Your task to perform on an android device: delete browsing data in the chrome app Image 0: 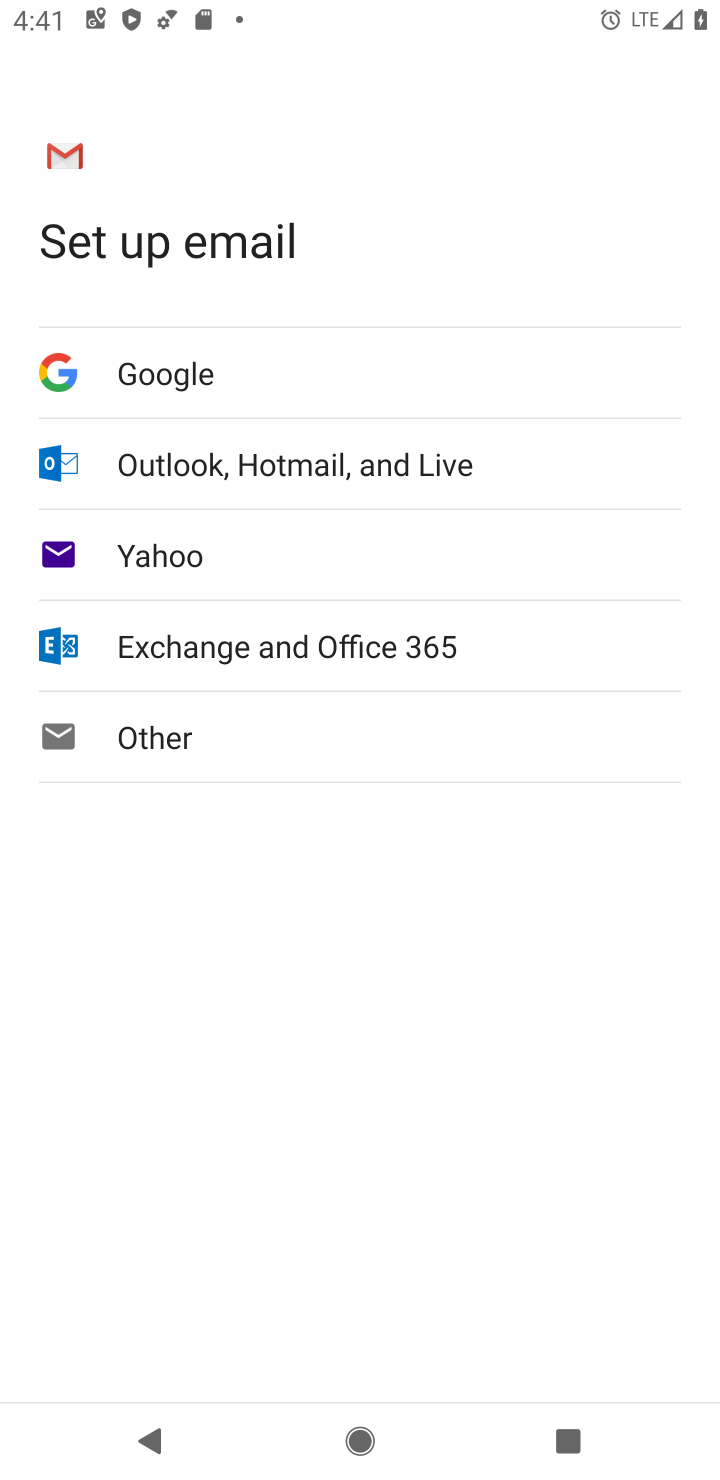
Step 0: press home button
Your task to perform on an android device: delete browsing data in the chrome app Image 1: 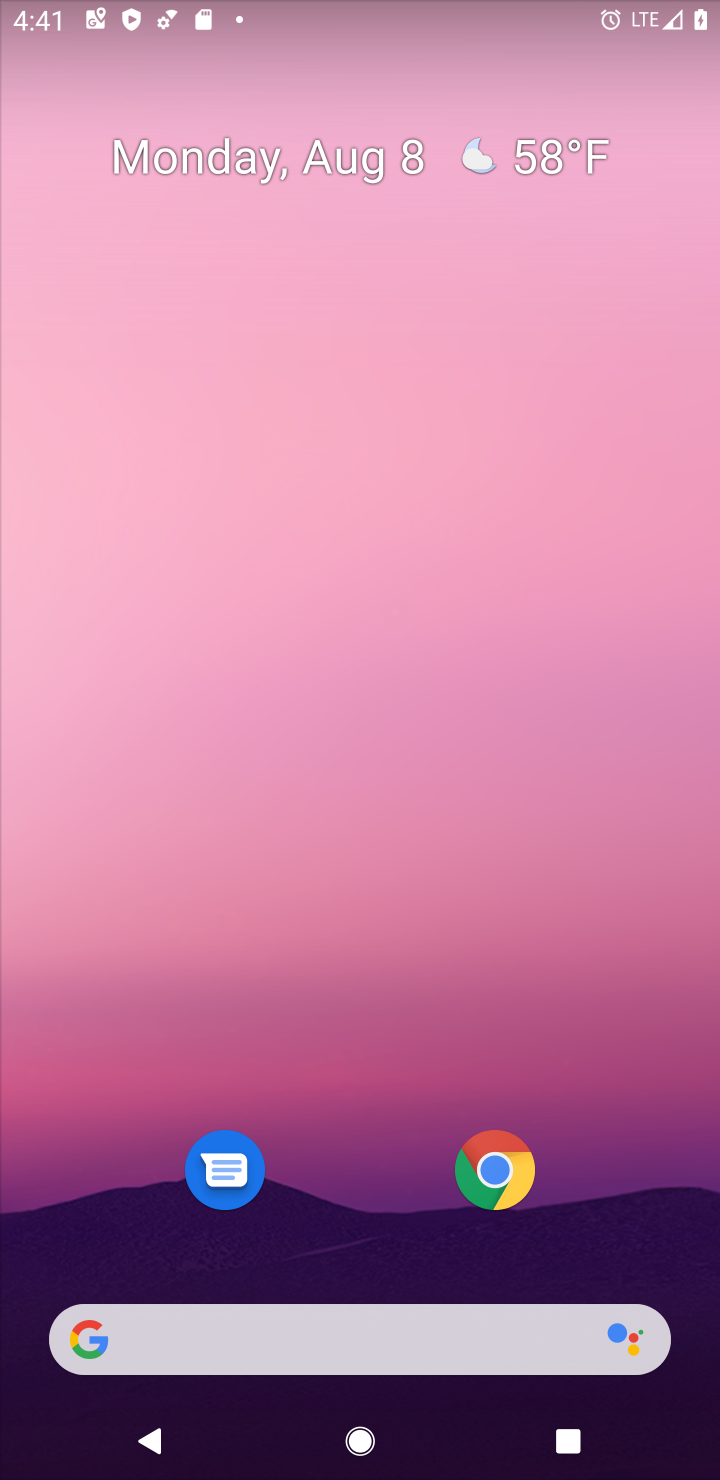
Step 1: click (543, 1178)
Your task to perform on an android device: delete browsing data in the chrome app Image 2: 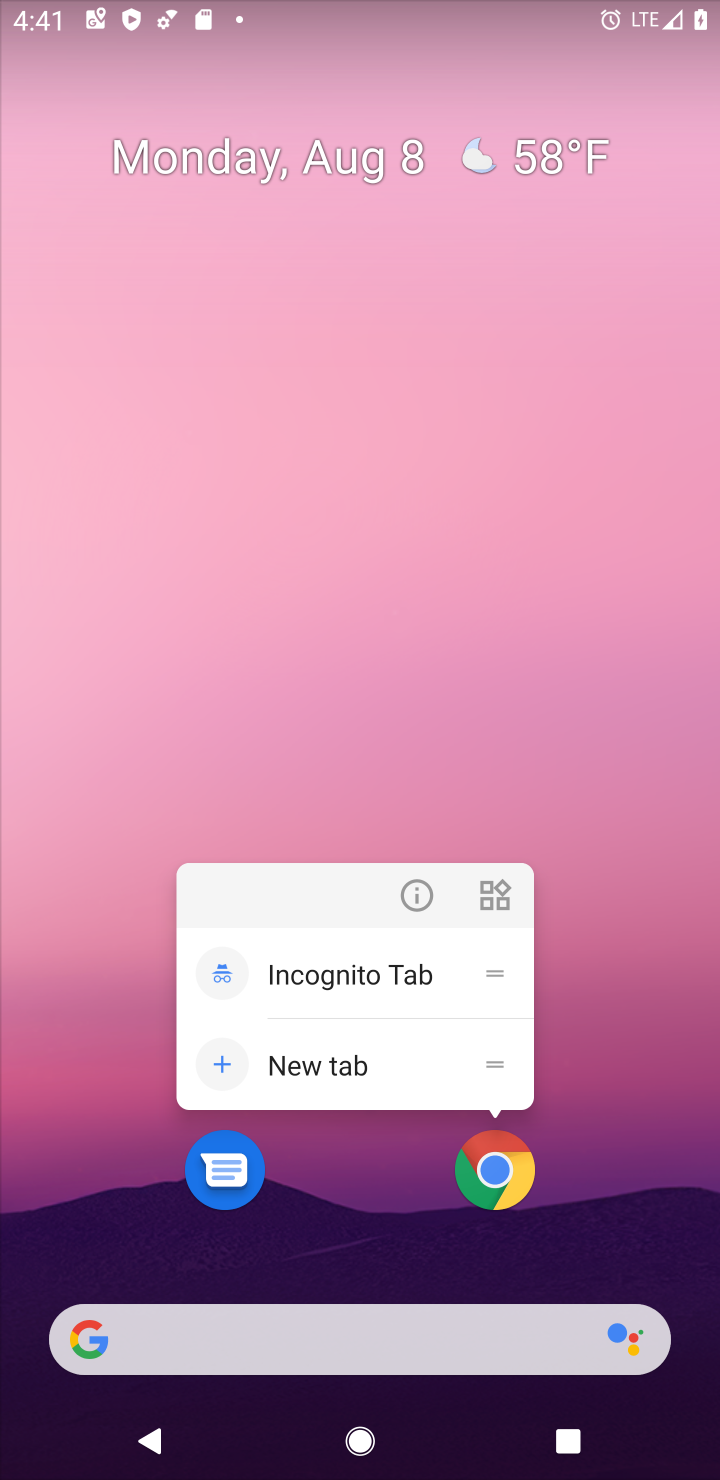
Step 2: click (517, 1201)
Your task to perform on an android device: delete browsing data in the chrome app Image 3: 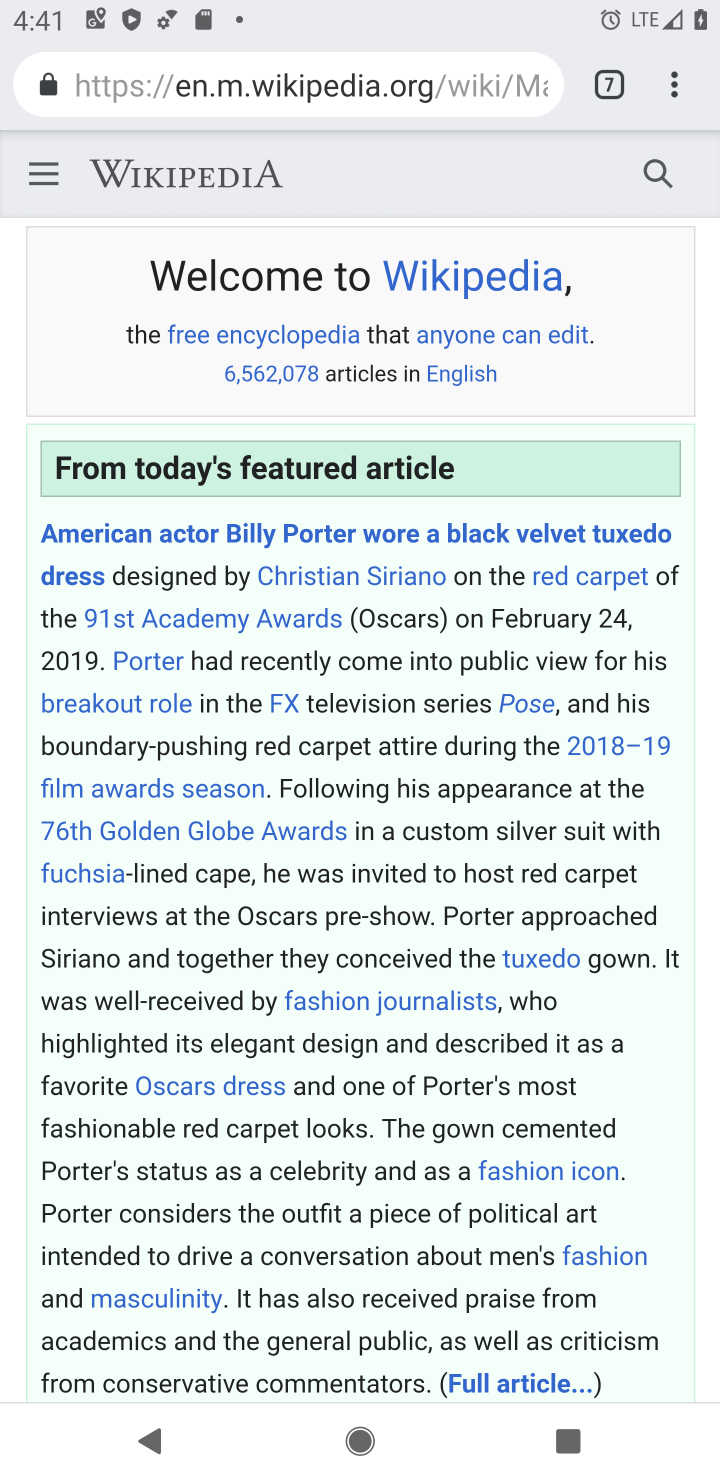
Step 3: click (672, 83)
Your task to perform on an android device: delete browsing data in the chrome app Image 4: 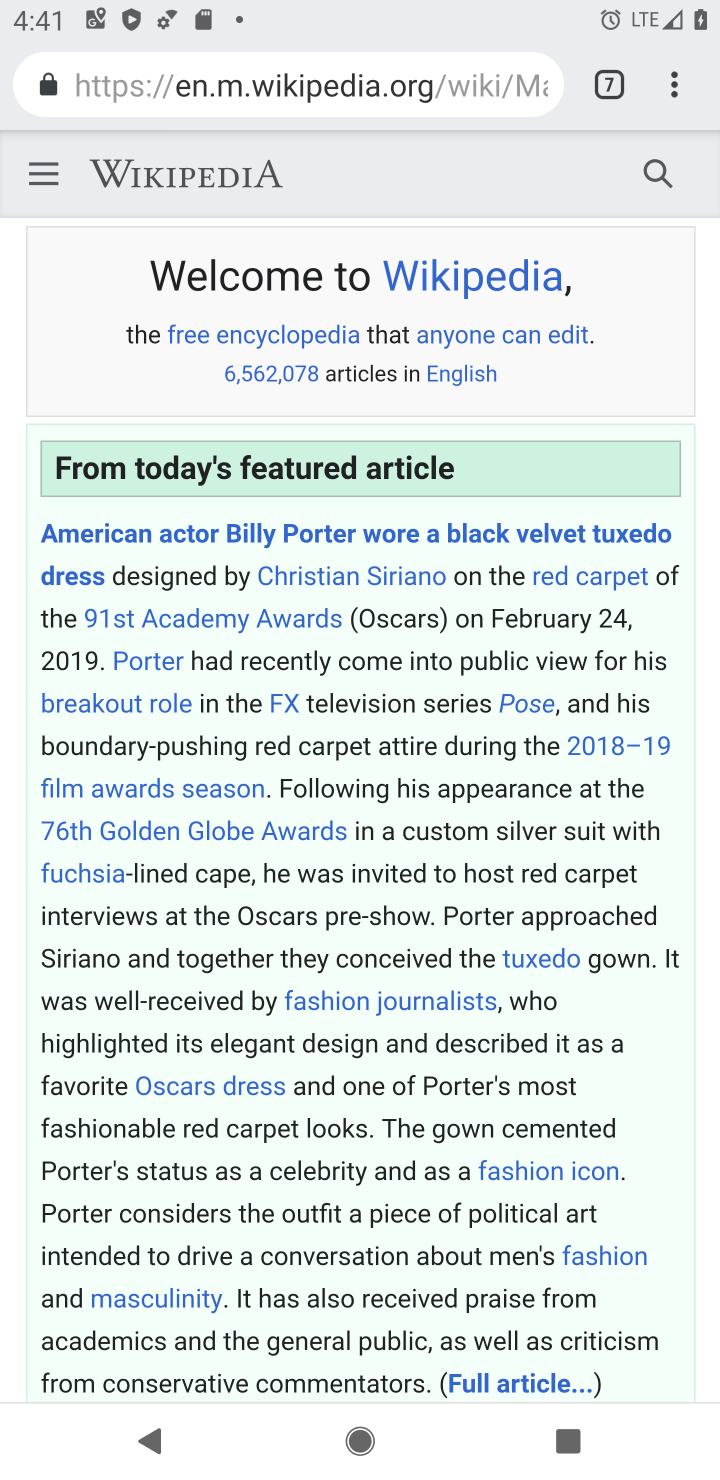
Step 4: click (676, 92)
Your task to perform on an android device: delete browsing data in the chrome app Image 5: 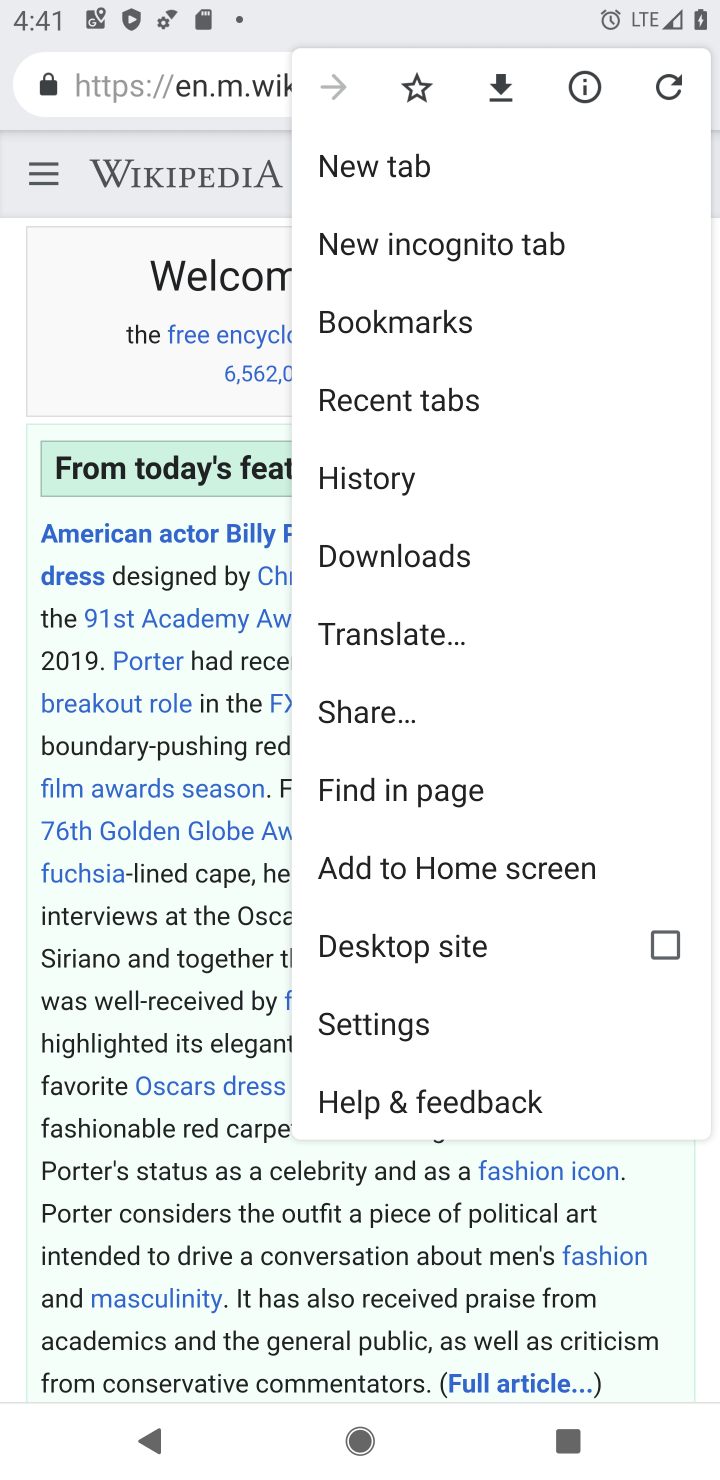
Step 5: click (457, 478)
Your task to perform on an android device: delete browsing data in the chrome app Image 6: 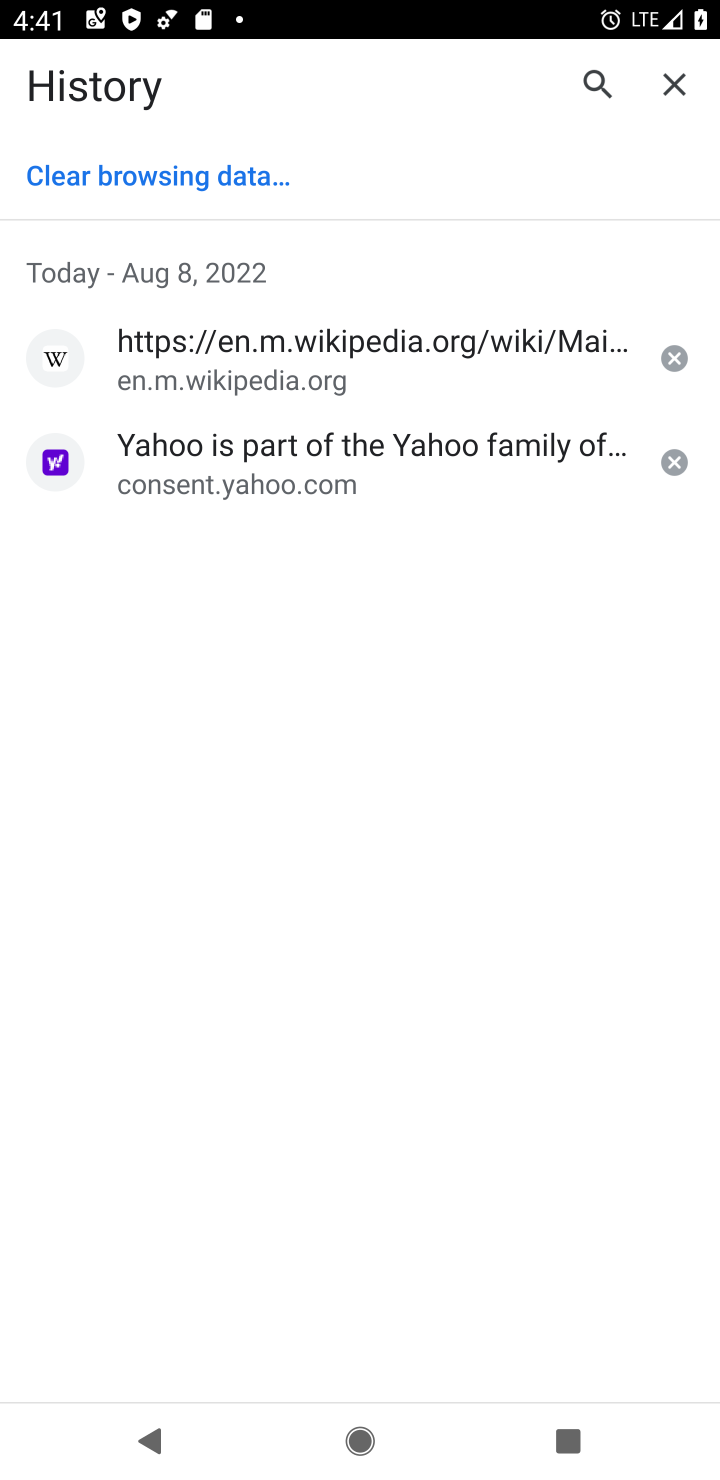
Step 6: click (129, 169)
Your task to perform on an android device: delete browsing data in the chrome app Image 7: 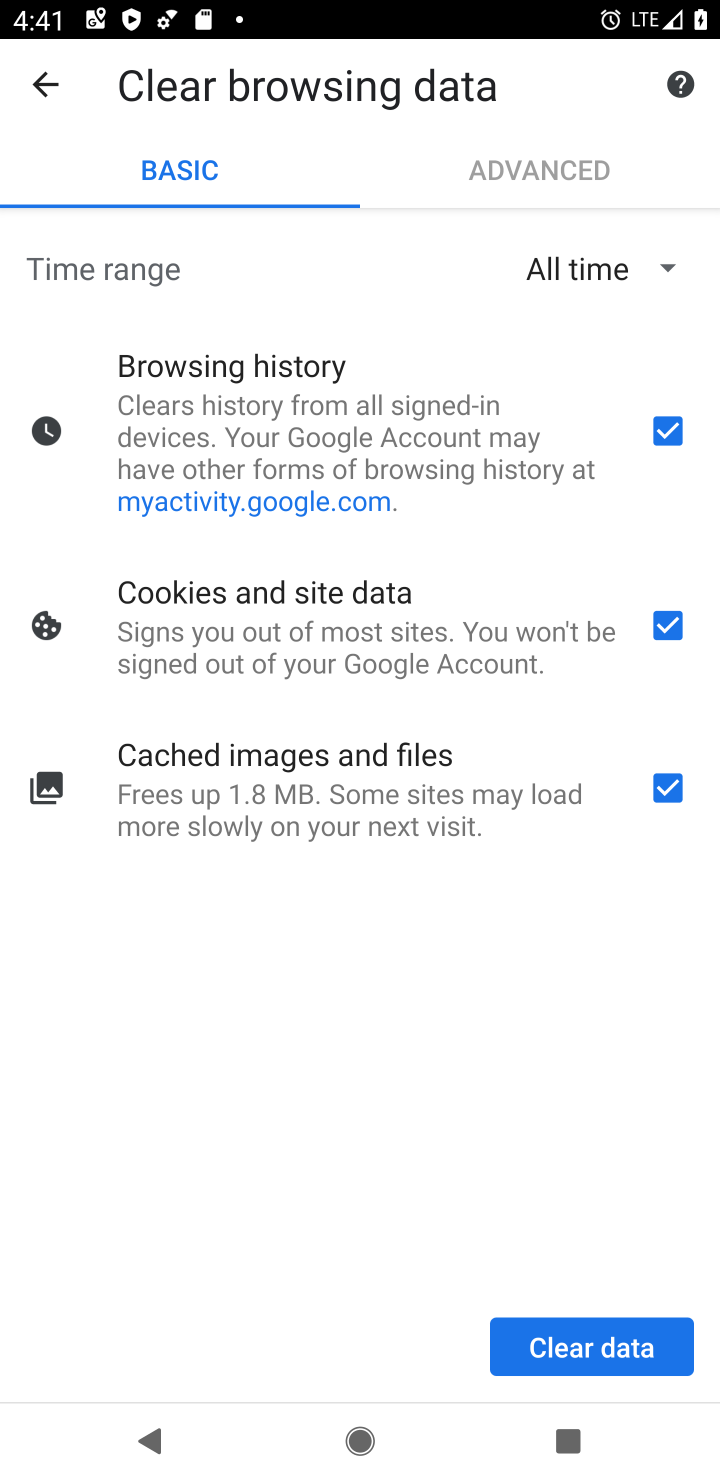
Step 7: click (596, 1320)
Your task to perform on an android device: delete browsing data in the chrome app Image 8: 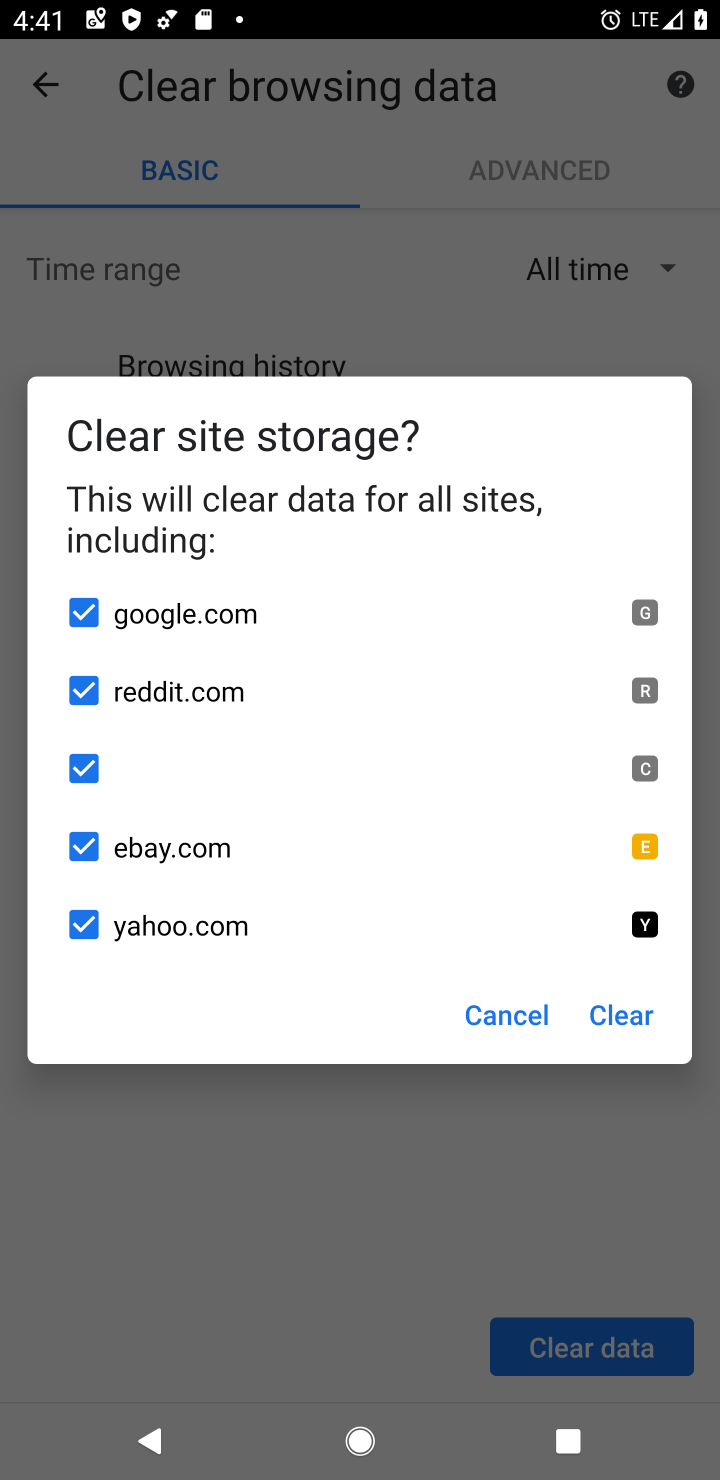
Step 8: click (624, 1002)
Your task to perform on an android device: delete browsing data in the chrome app Image 9: 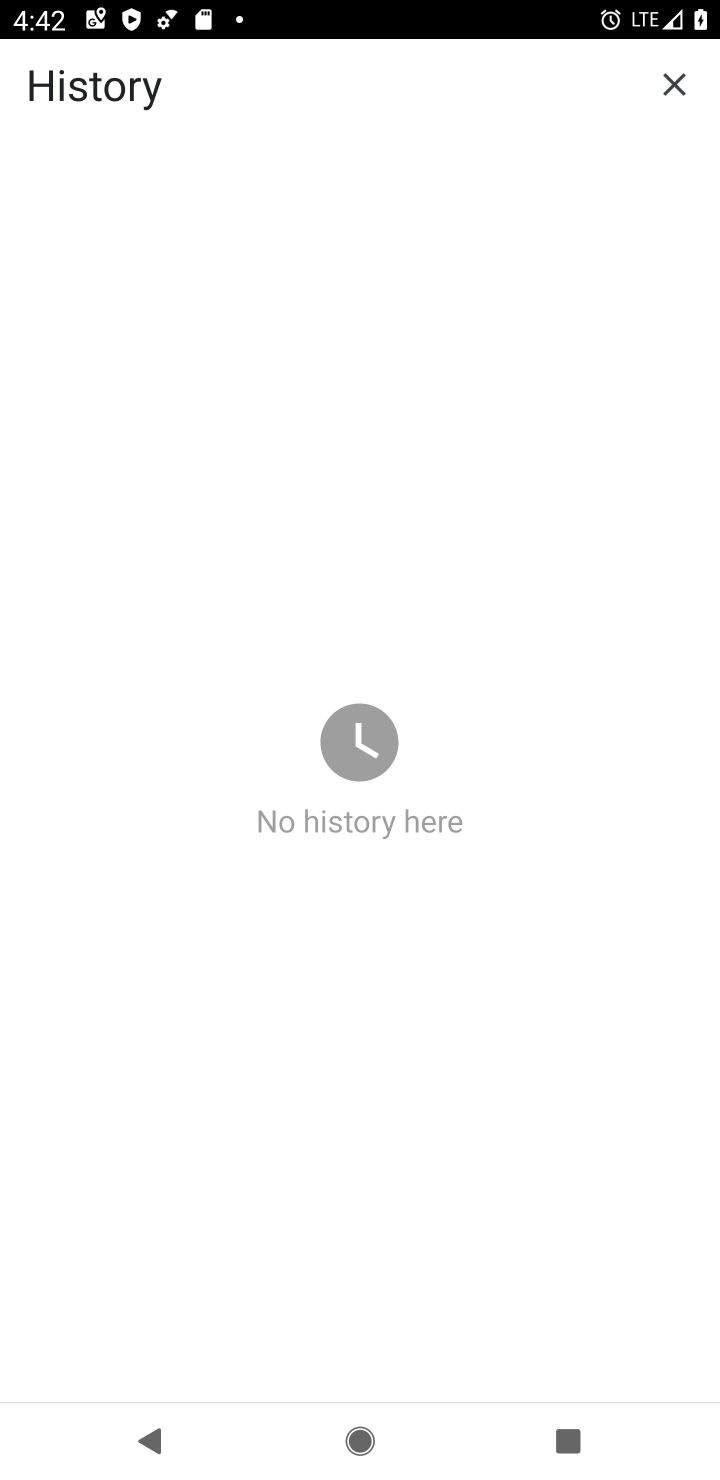
Step 9: task complete